Your task to perform on an android device: What's the weather like in Seoul? Image 0: 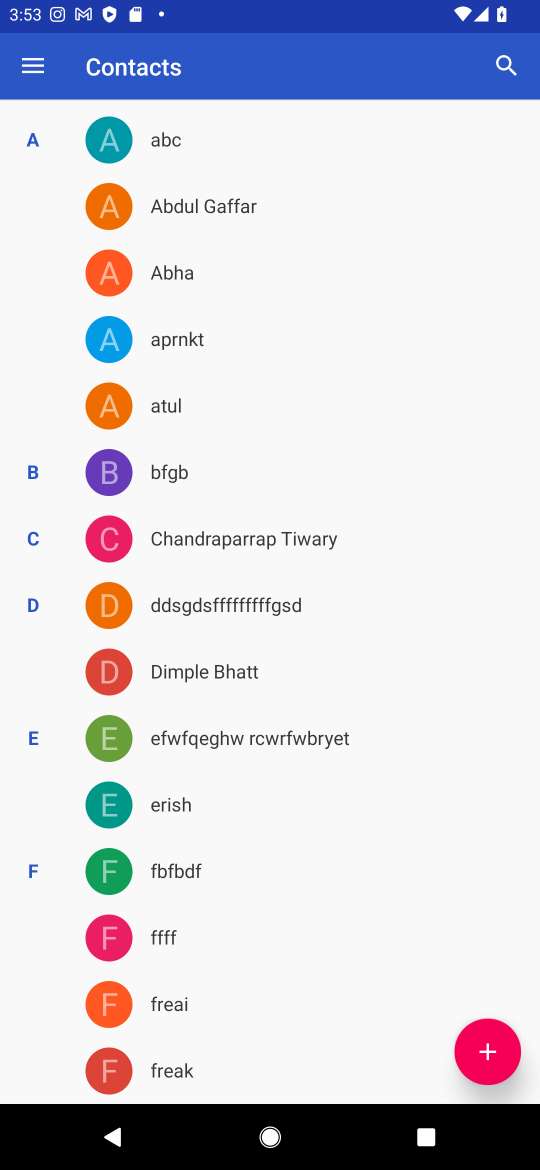
Step 0: press home button
Your task to perform on an android device: What's the weather like in Seoul? Image 1: 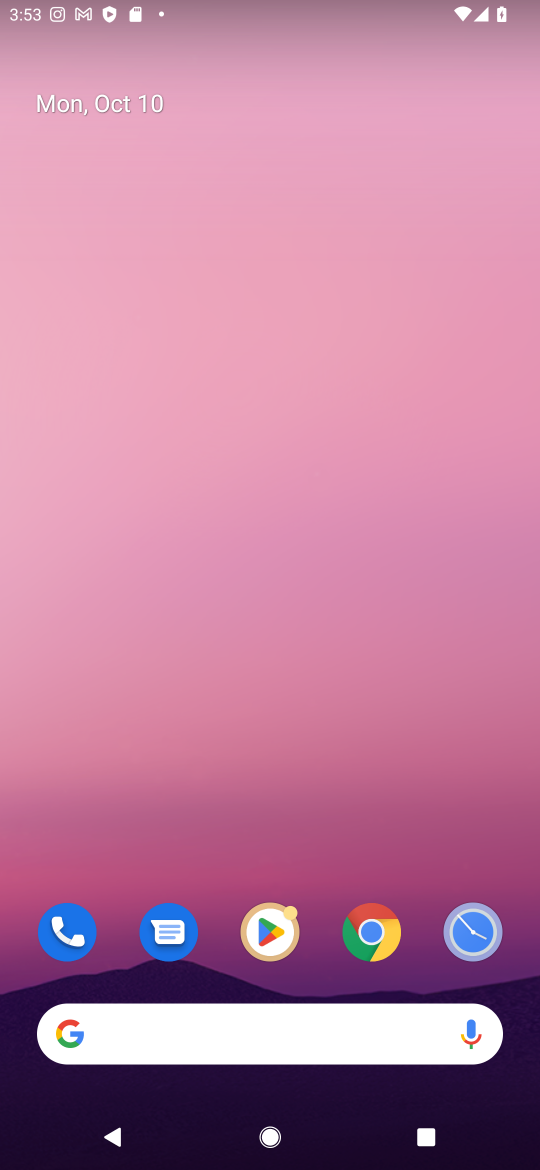
Step 1: click (309, 1034)
Your task to perform on an android device: What's the weather like in Seoul? Image 2: 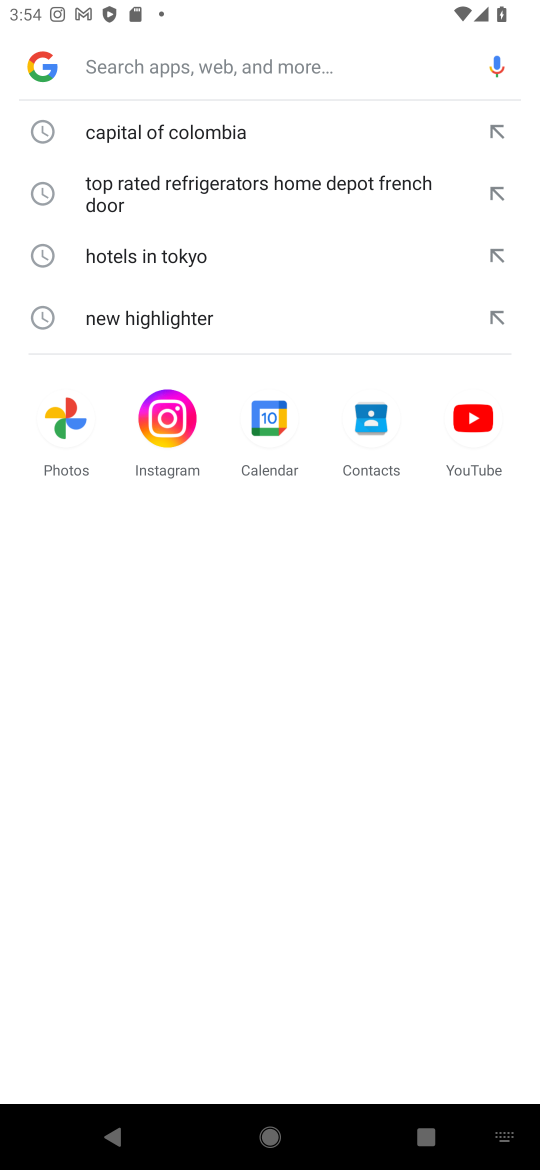
Step 2: type "What's the weather like in Seoul"
Your task to perform on an android device: What's the weather like in Seoul? Image 3: 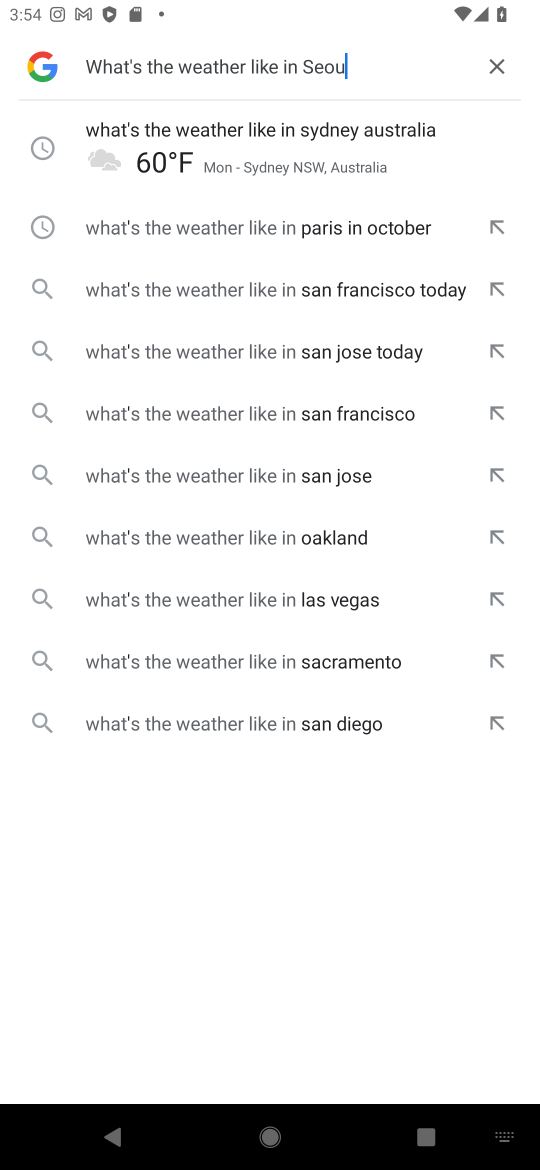
Step 3: press enter
Your task to perform on an android device: What's the weather like in Seoul? Image 4: 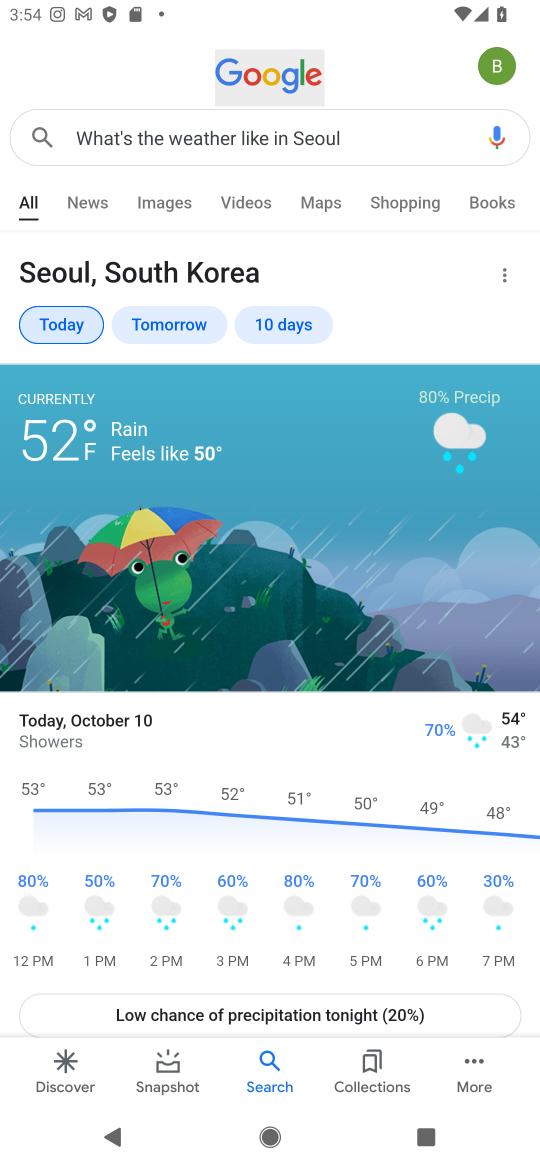
Step 4: task complete